Your task to perform on an android device: Go to Google maps Image 0: 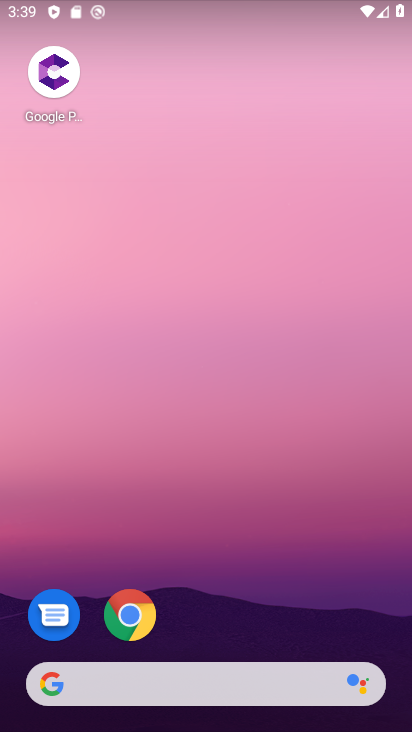
Step 0: drag from (247, 614) to (216, 147)
Your task to perform on an android device: Go to Google maps Image 1: 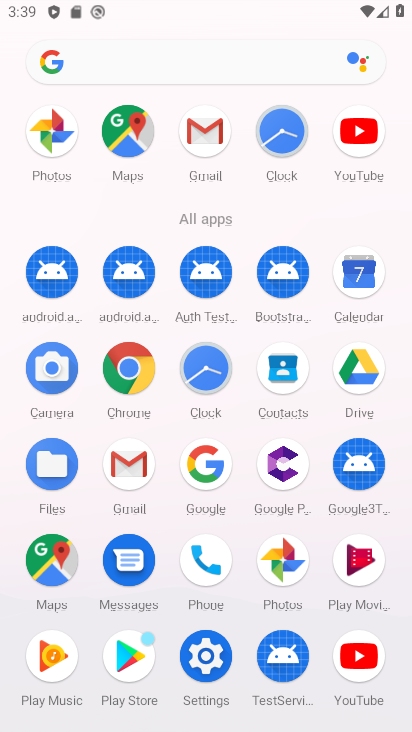
Step 1: click (58, 559)
Your task to perform on an android device: Go to Google maps Image 2: 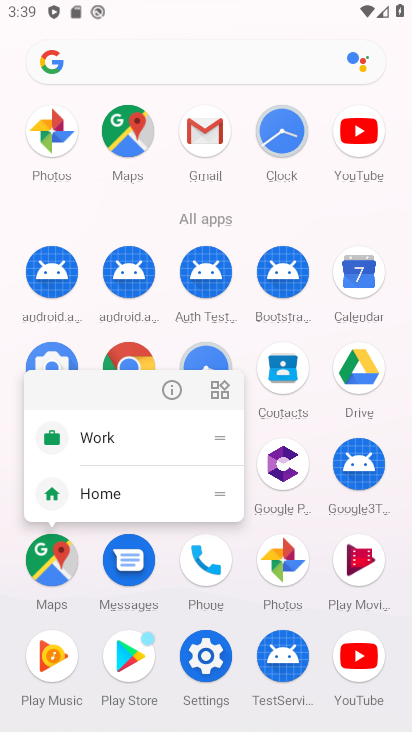
Step 2: click (52, 560)
Your task to perform on an android device: Go to Google maps Image 3: 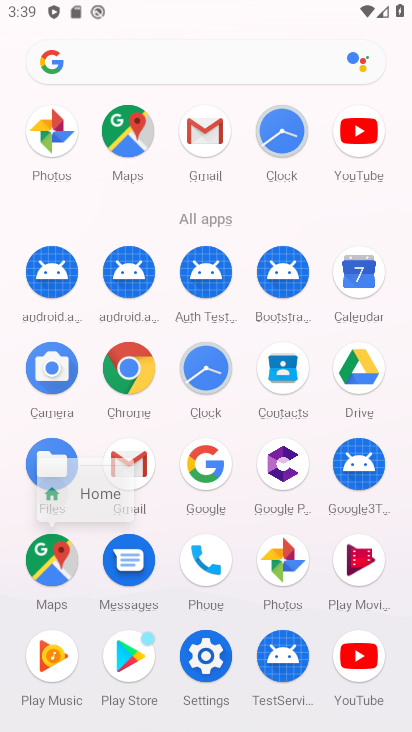
Step 3: click (50, 562)
Your task to perform on an android device: Go to Google maps Image 4: 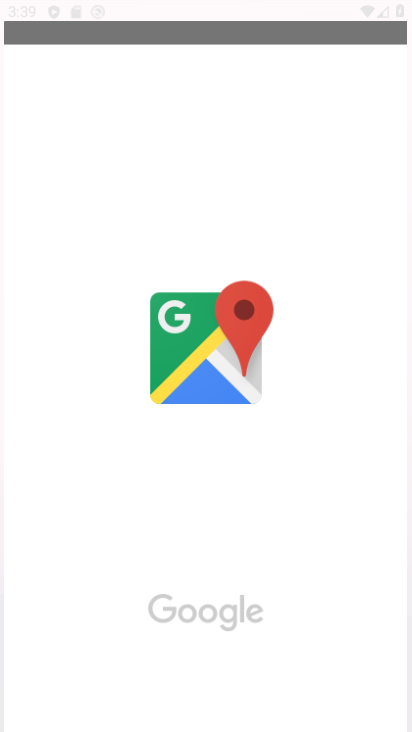
Step 4: click (47, 561)
Your task to perform on an android device: Go to Google maps Image 5: 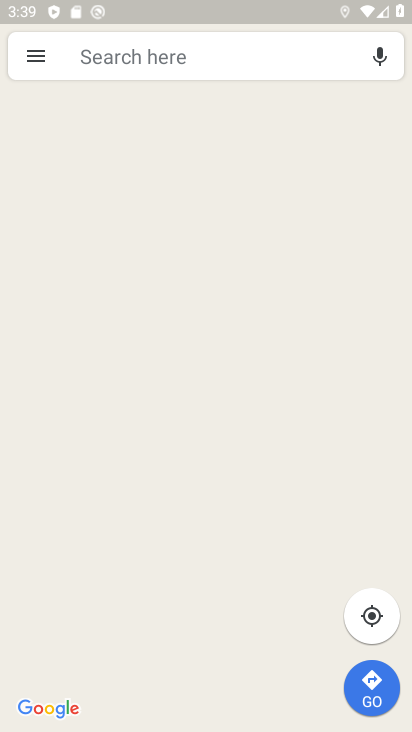
Step 5: task complete